Your task to perform on an android device: open chrome and create a bookmark for the current page Image 0: 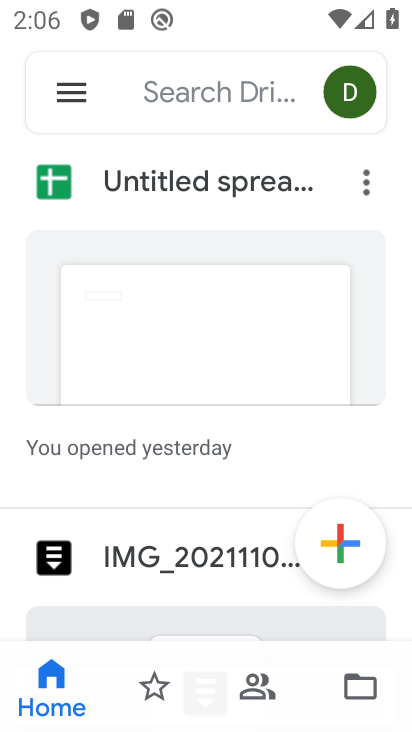
Step 0: press home button
Your task to perform on an android device: open chrome and create a bookmark for the current page Image 1: 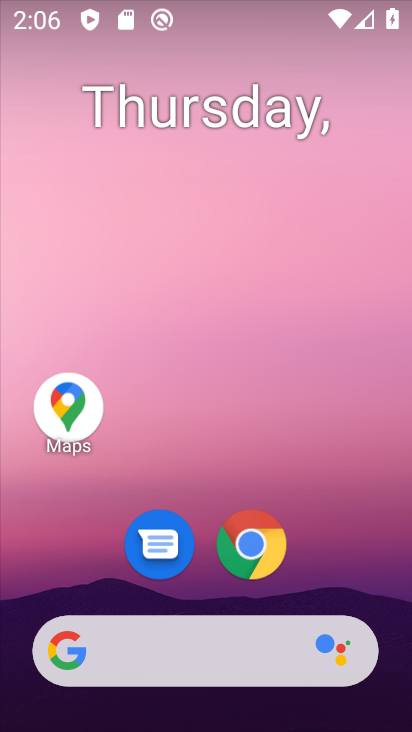
Step 1: click (258, 545)
Your task to perform on an android device: open chrome and create a bookmark for the current page Image 2: 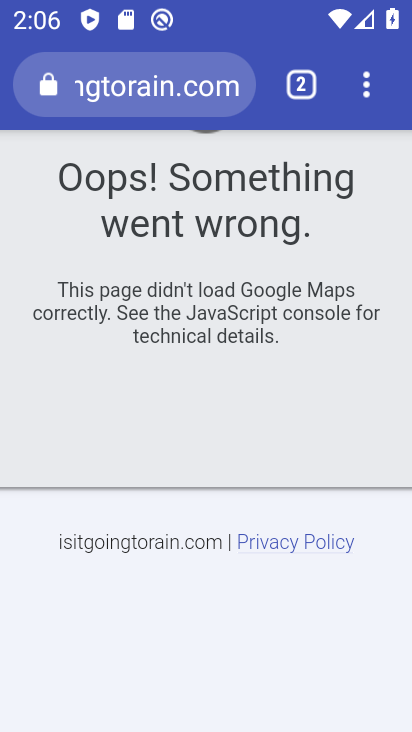
Step 2: click (369, 89)
Your task to perform on an android device: open chrome and create a bookmark for the current page Image 3: 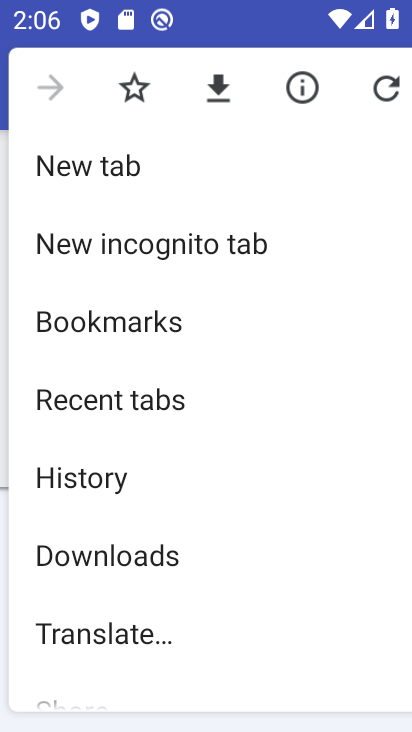
Step 3: click (136, 88)
Your task to perform on an android device: open chrome and create a bookmark for the current page Image 4: 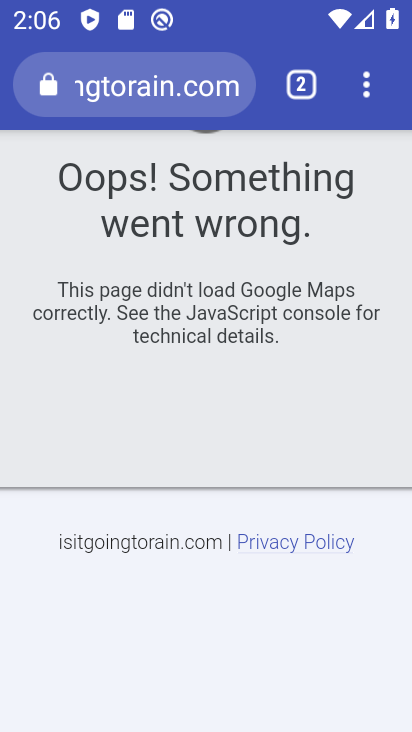
Step 4: task complete